Your task to perform on an android device: change the upload size in google photos Image 0: 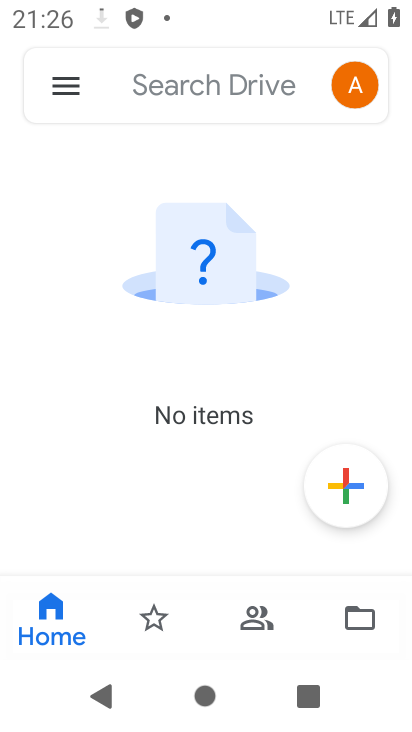
Step 0: press back button
Your task to perform on an android device: change the upload size in google photos Image 1: 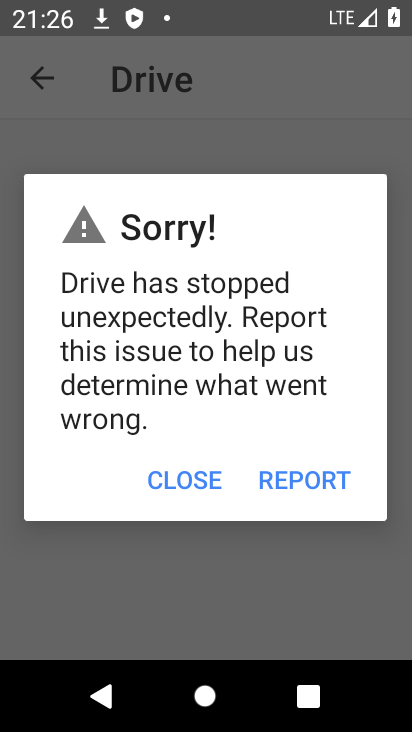
Step 1: click (190, 468)
Your task to perform on an android device: change the upload size in google photos Image 2: 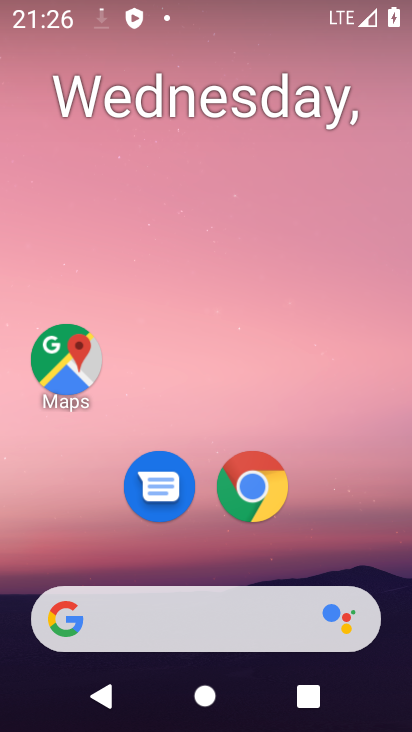
Step 2: drag from (233, 530) to (232, 33)
Your task to perform on an android device: change the upload size in google photos Image 3: 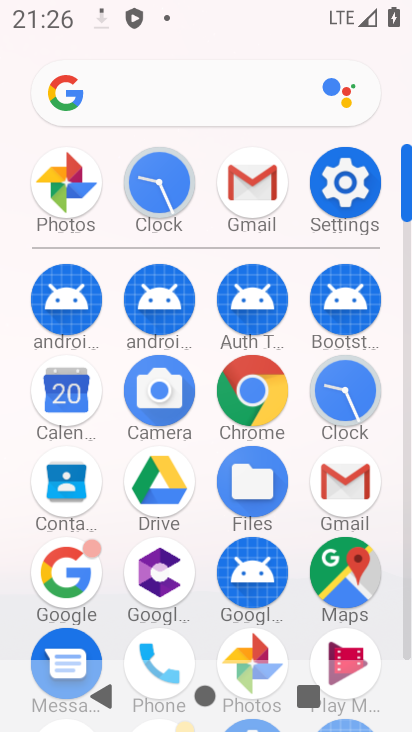
Step 3: click (264, 643)
Your task to perform on an android device: change the upload size in google photos Image 4: 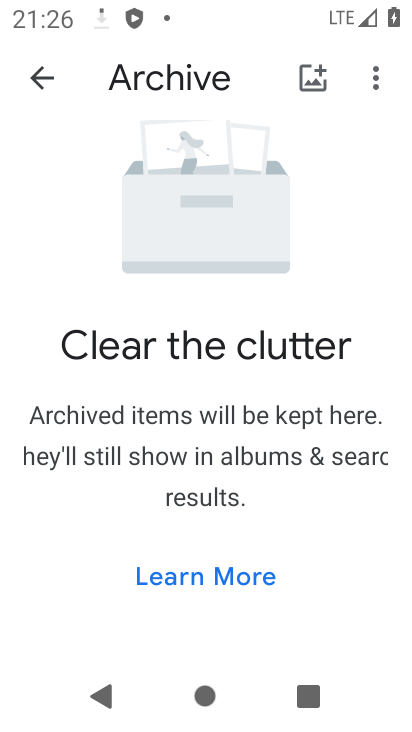
Step 4: click (42, 79)
Your task to perform on an android device: change the upload size in google photos Image 5: 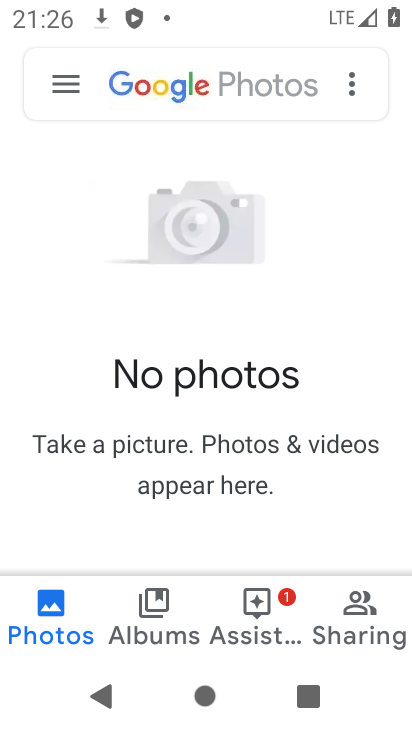
Step 5: click (85, 68)
Your task to perform on an android device: change the upload size in google photos Image 6: 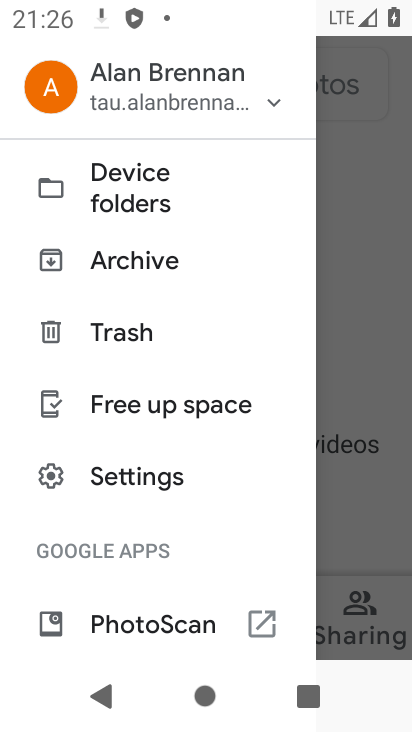
Step 6: click (100, 468)
Your task to perform on an android device: change the upload size in google photos Image 7: 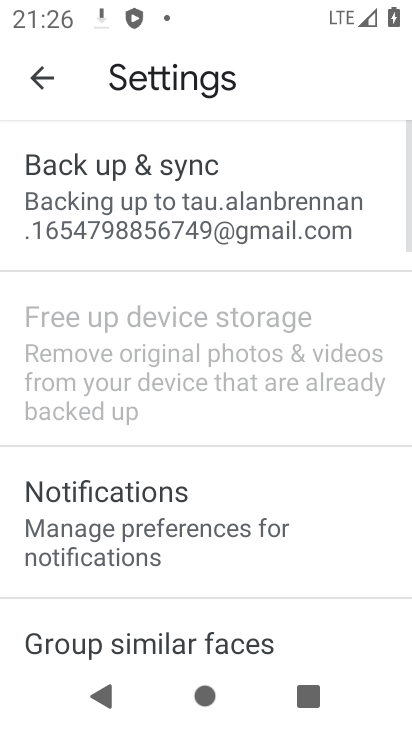
Step 7: click (154, 189)
Your task to perform on an android device: change the upload size in google photos Image 8: 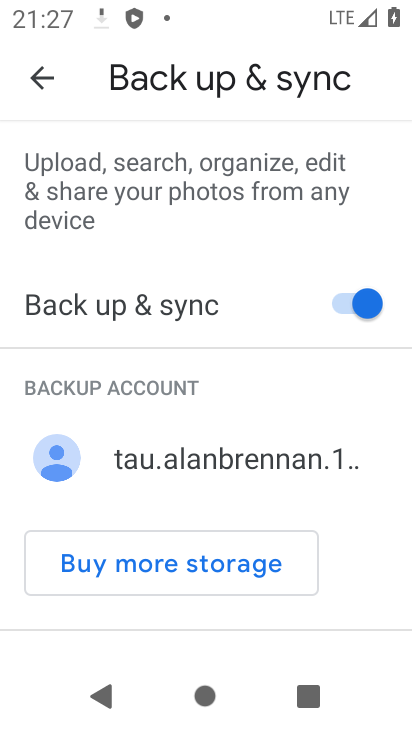
Step 8: drag from (161, 507) to (216, 87)
Your task to perform on an android device: change the upload size in google photos Image 9: 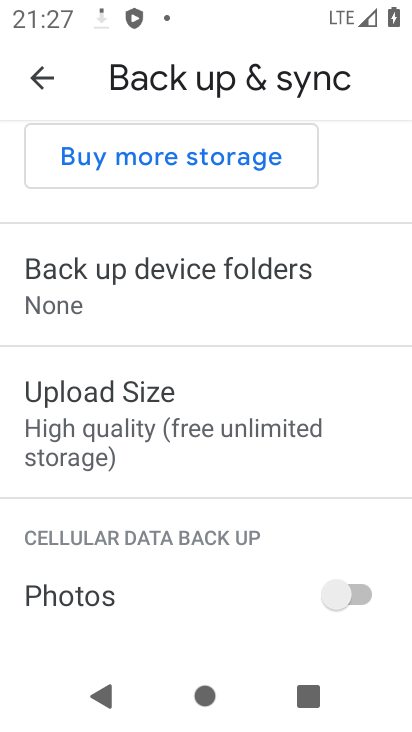
Step 9: click (89, 404)
Your task to perform on an android device: change the upload size in google photos Image 10: 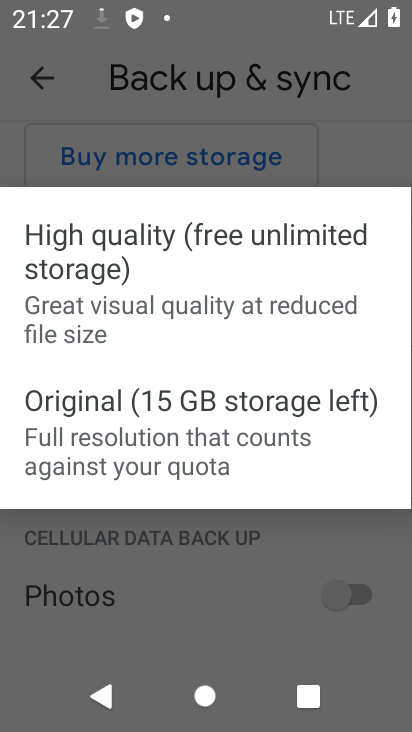
Step 10: click (95, 398)
Your task to perform on an android device: change the upload size in google photos Image 11: 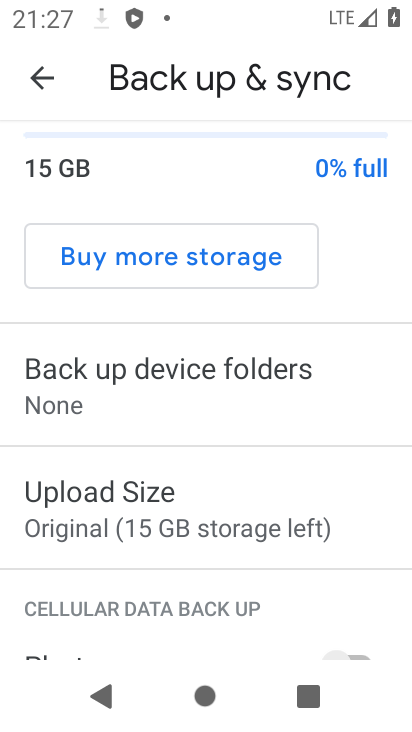
Step 11: task complete